Your task to perform on an android device: turn on airplane mode Image 0: 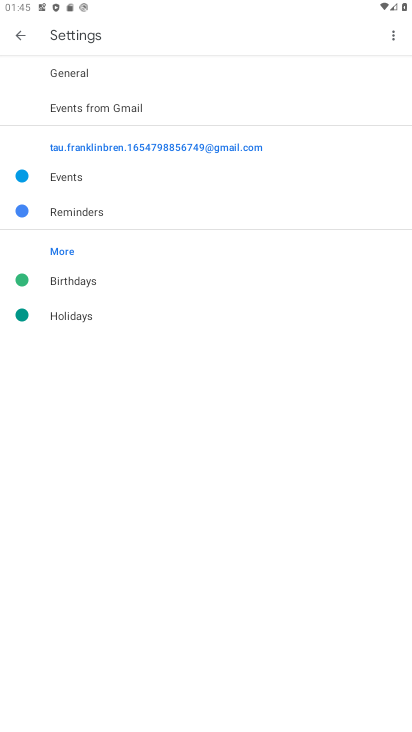
Step 0: press home button
Your task to perform on an android device: turn on airplane mode Image 1: 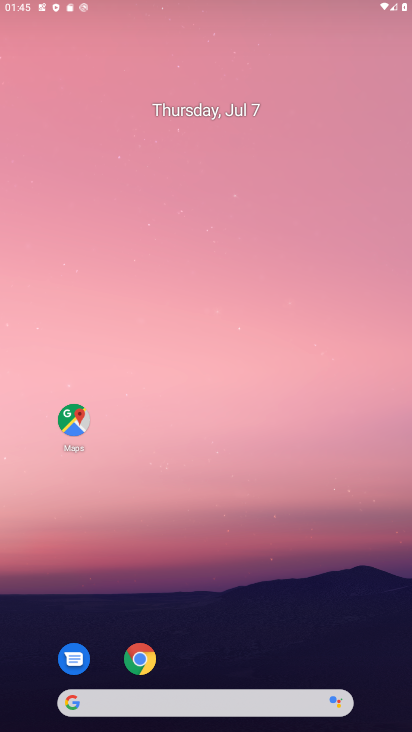
Step 1: drag from (270, 651) to (288, 91)
Your task to perform on an android device: turn on airplane mode Image 2: 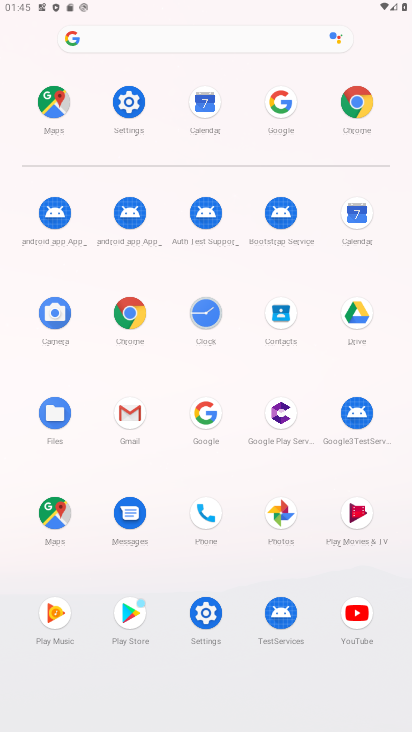
Step 2: click (130, 101)
Your task to perform on an android device: turn on airplane mode Image 3: 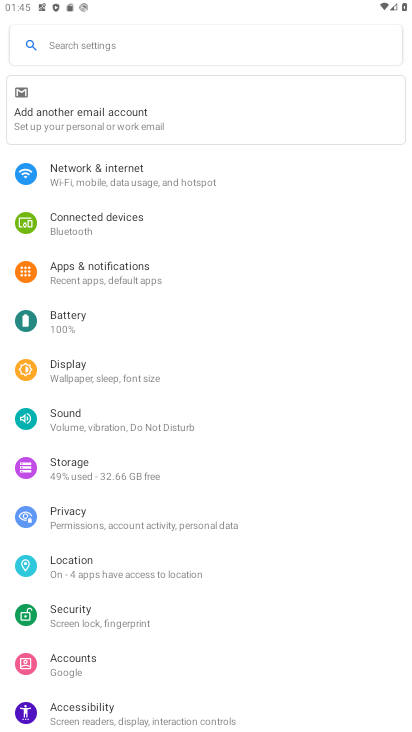
Step 3: click (112, 173)
Your task to perform on an android device: turn on airplane mode Image 4: 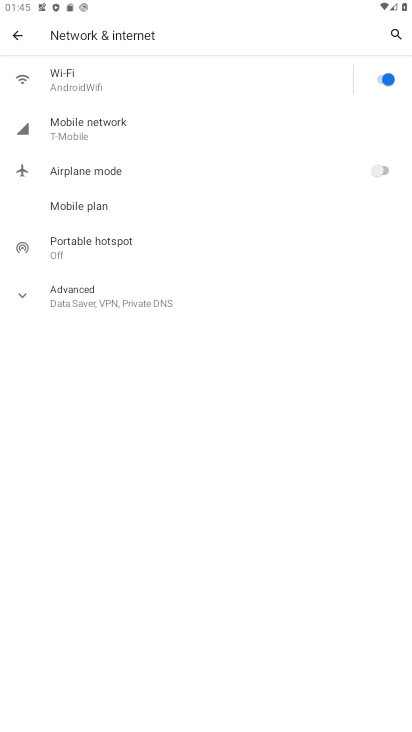
Step 4: click (384, 168)
Your task to perform on an android device: turn on airplane mode Image 5: 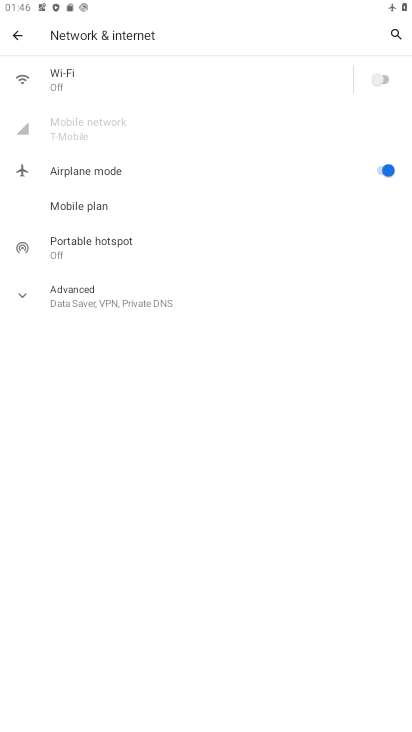
Step 5: task complete